Your task to perform on an android device: see sites visited before in the chrome app Image 0: 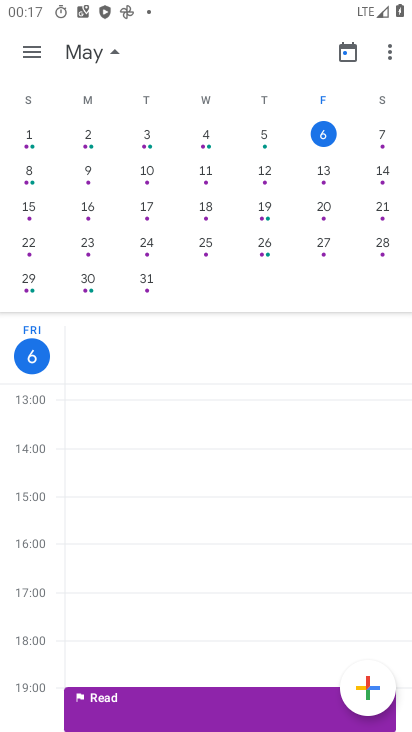
Step 0: press home button
Your task to perform on an android device: see sites visited before in the chrome app Image 1: 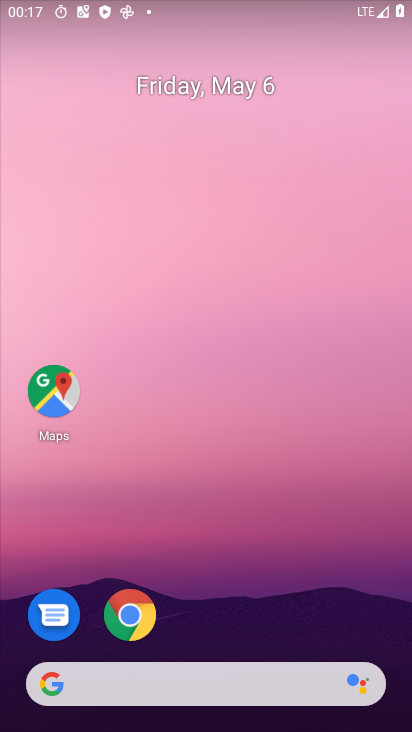
Step 1: drag from (248, 567) to (281, 119)
Your task to perform on an android device: see sites visited before in the chrome app Image 2: 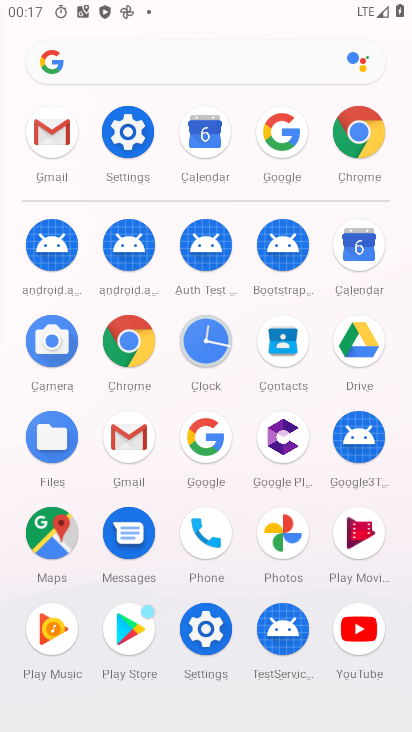
Step 2: click (363, 132)
Your task to perform on an android device: see sites visited before in the chrome app Image 3: 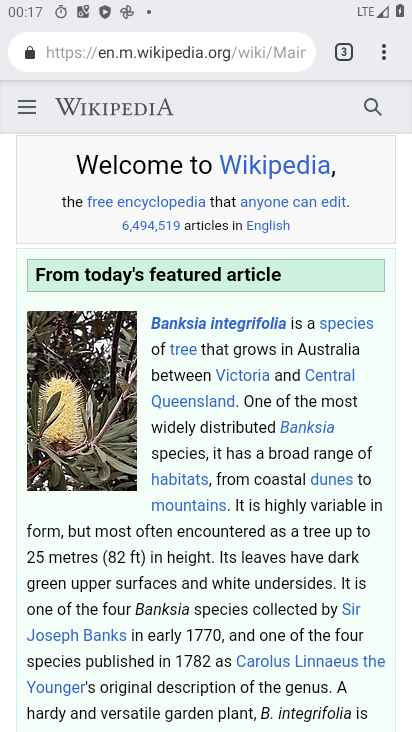
Step 3: click (374, 51)
Your task to perform on an android device: see sites visited before in the chrome app Image 4: 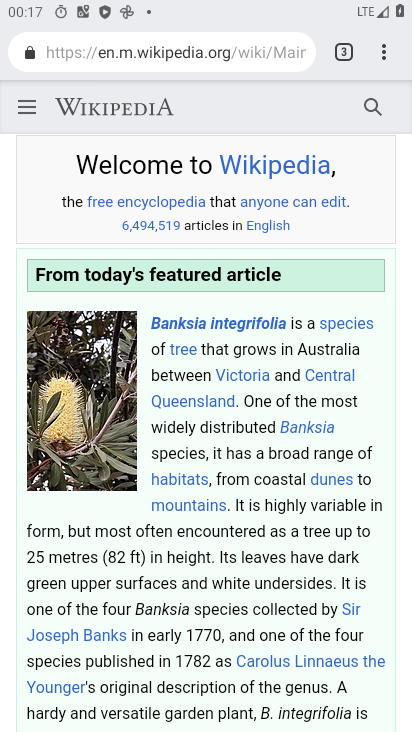
Step 4: click (376, 48)
Your task to perform on an android device: see sites visited before in the chrome app Image 5: 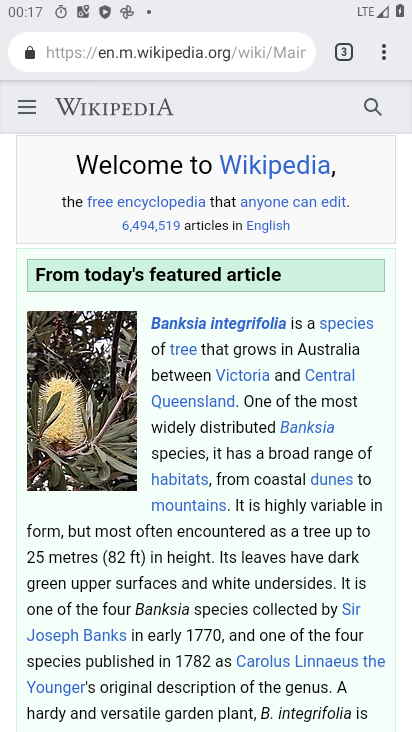
Step 5: click (373, 56)
Your task to perform on an android device: see sites visited before in the chrome app Image 6: 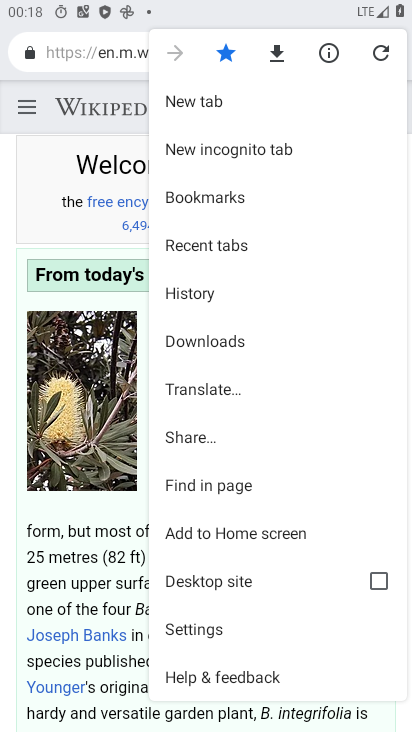
Step 6: click (216, 240)
Your task to perform on an android device: see sites visited before in the chrome app Image 7: 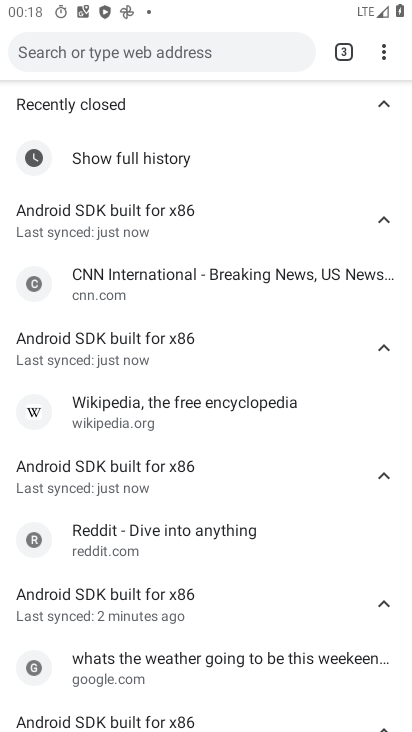
Step 7: task complete